Your task to perform on an android device: See recent photos Image 0: 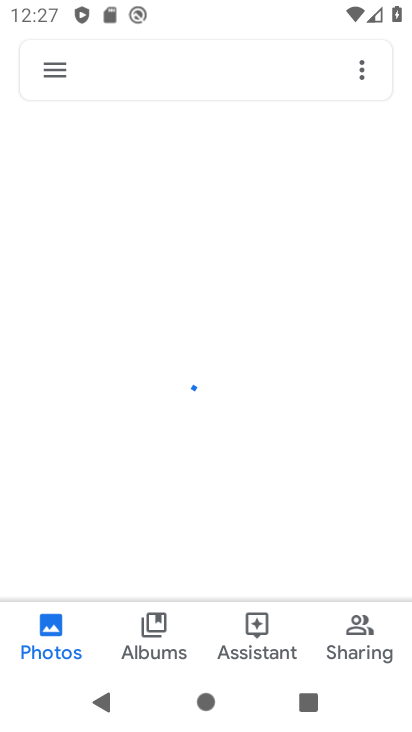
Step 0: press home button
Your task to perform on an android device: See recent photos Image 1: 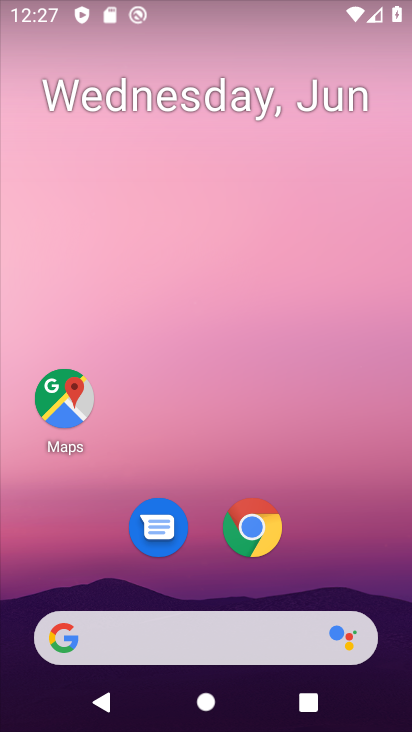
Step 1: drag from (198, 625) to (187, 87)
Your task to perform on an android device: See recent photos Image 2: 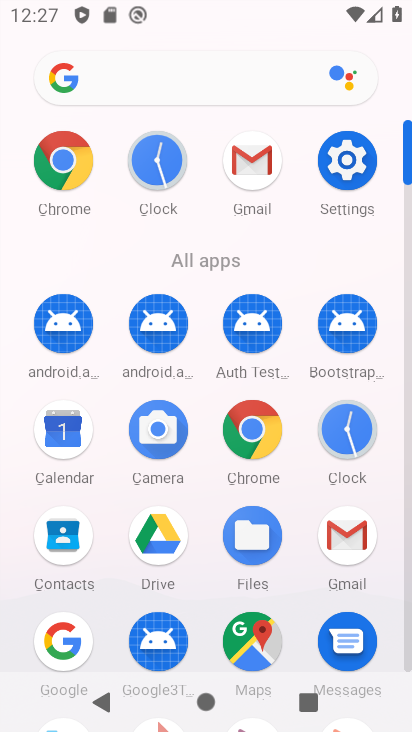
Step 2: drag from (203, 581) to (183, 146)
Your task to perform on an android device: See recent photos Image 3: 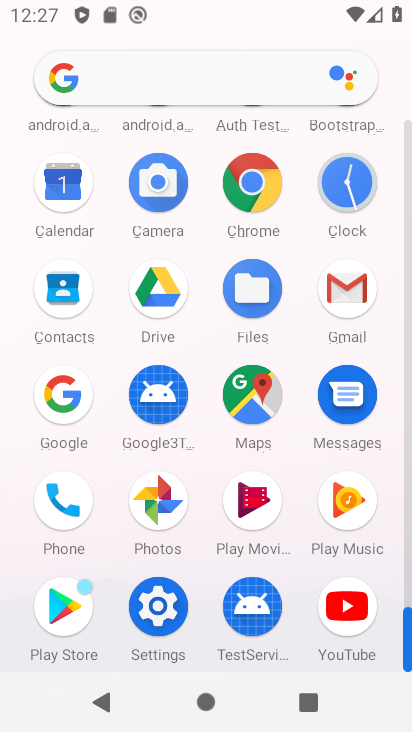
Step 3: click (156, 519)
Your task to perform on an android device: See recent photos Image 4: 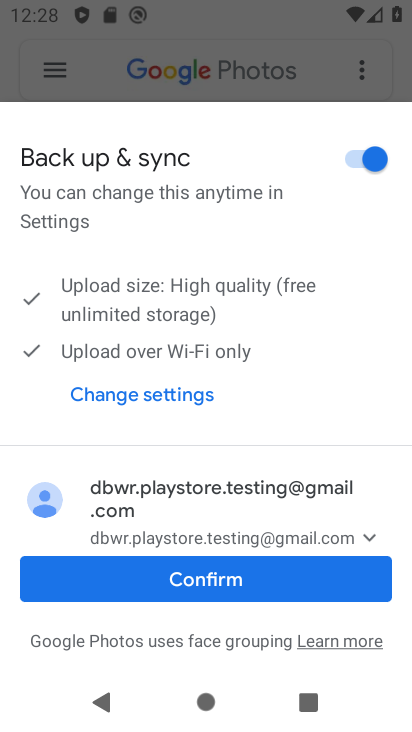
Step 4: click (160, 572)
Your task to perform on an android device: See recent photos Image 5: 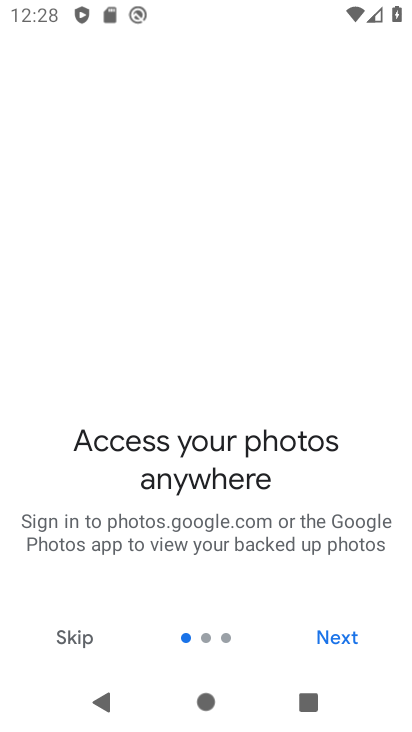
Step 5: click (73, 641)
Your task to perform on an android device: See recent photos Image 6: 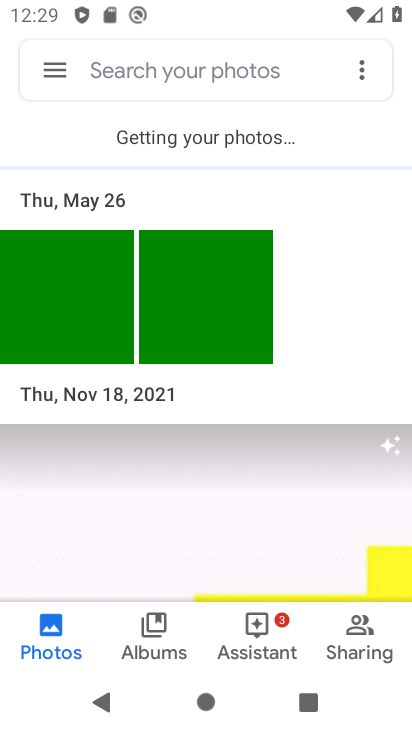
Step 6: task complete